Your task to perform on an android device: Add panasonic triple a to the cart on walmart, then select checkout. Image 0: 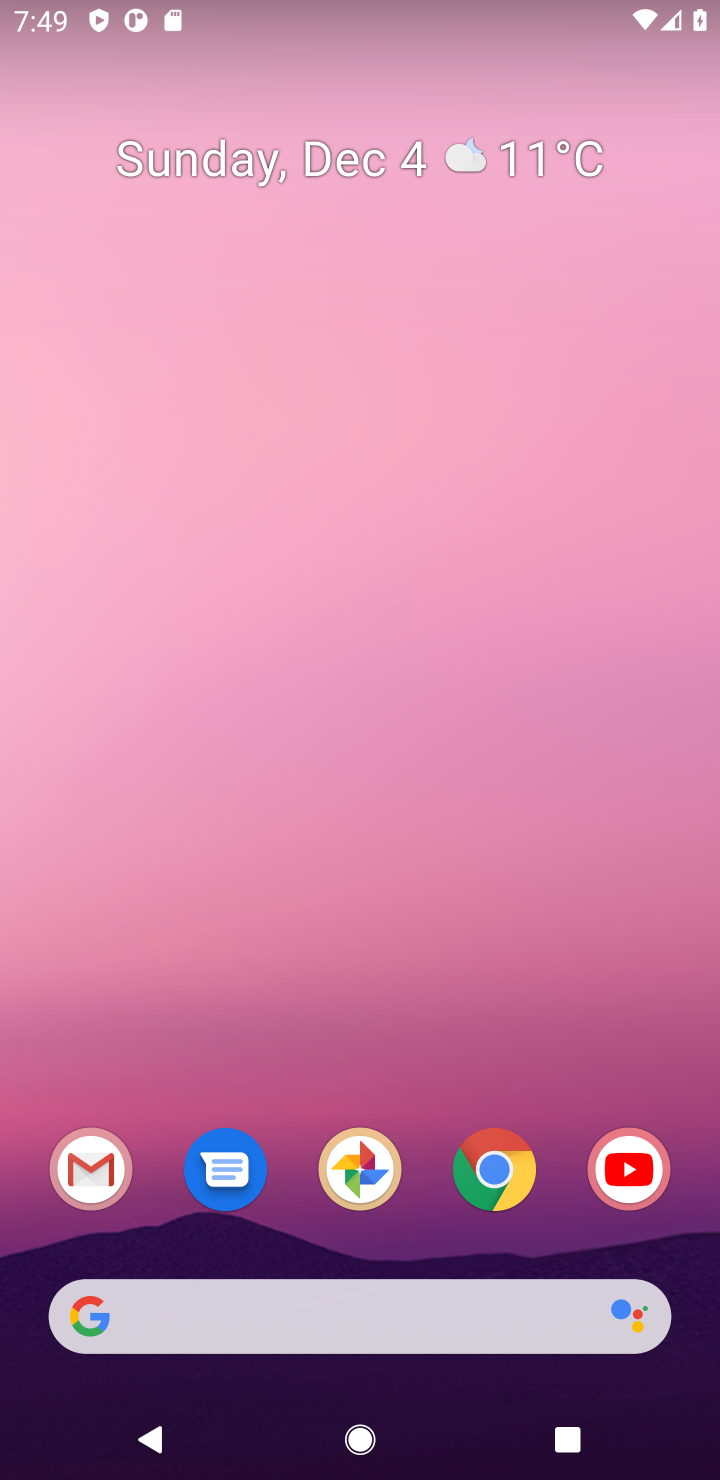
Step 0: drag from (470, 1380) to (515, 7)
Your task to perform on an android device: Add panasonic triple a to the cart on walmart, then select checkout. Image 1: 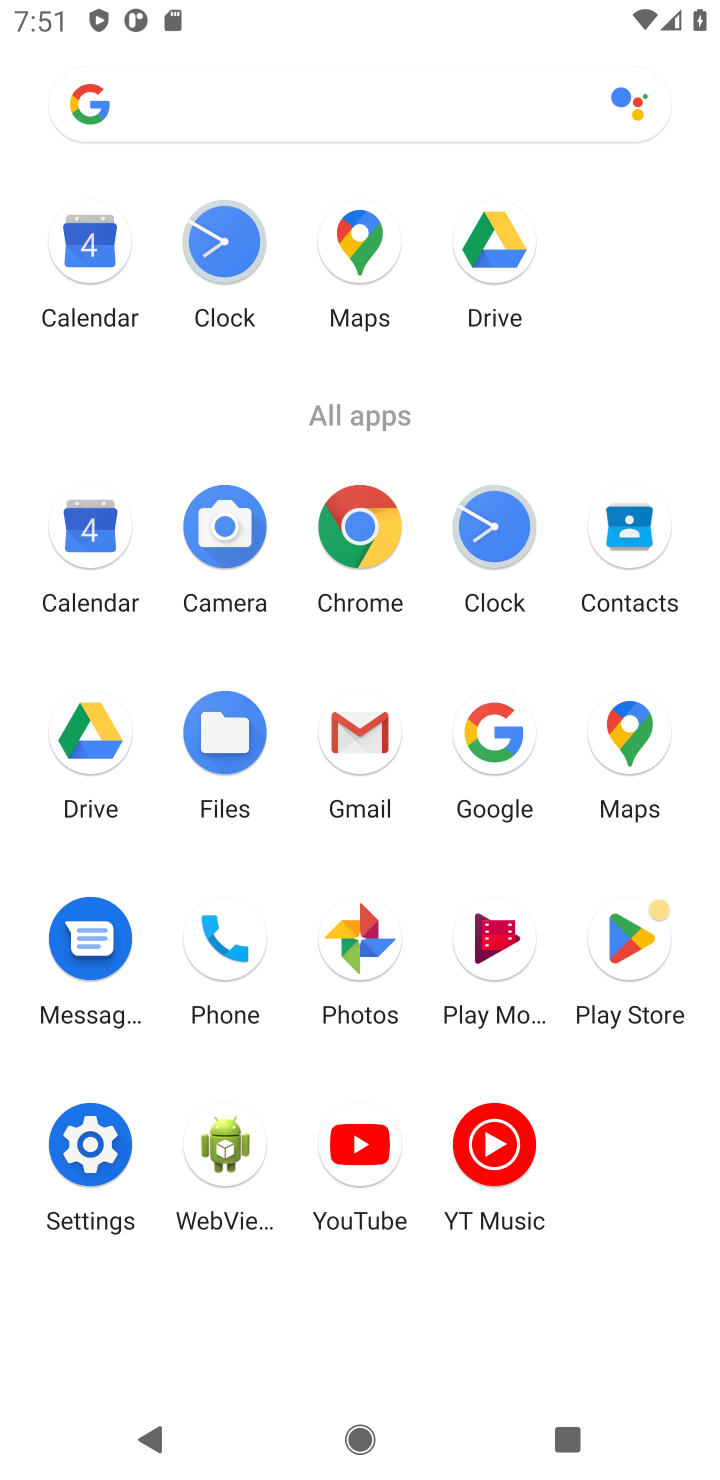
Step 1: click (357, 523)
Your task to perform on an android device: Add panasonic triple a to the cart on walmart, then select checkout. Image 2: 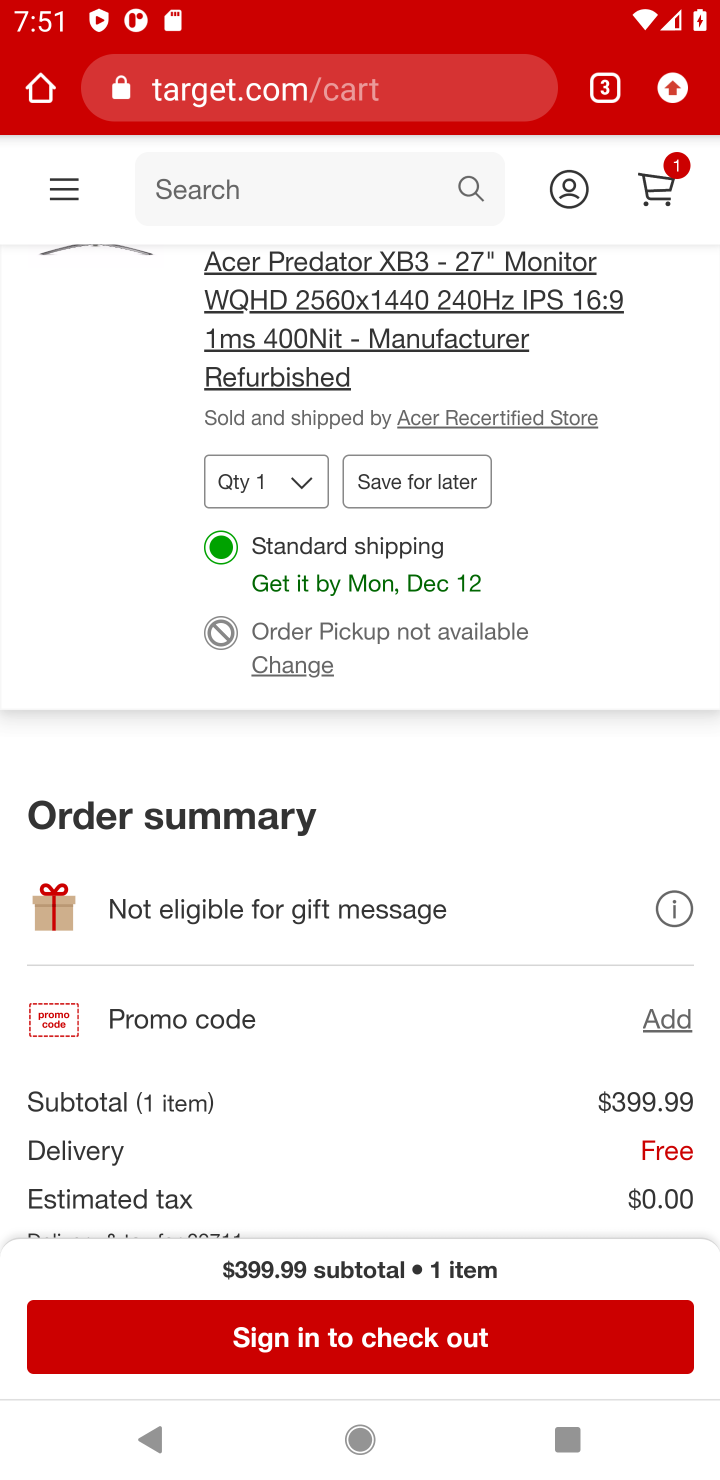
Step 2: click (408, 75)
Your task to perform on an android device: Add panasonic triple a to the cart on walmart, then select checkout. Image 3: 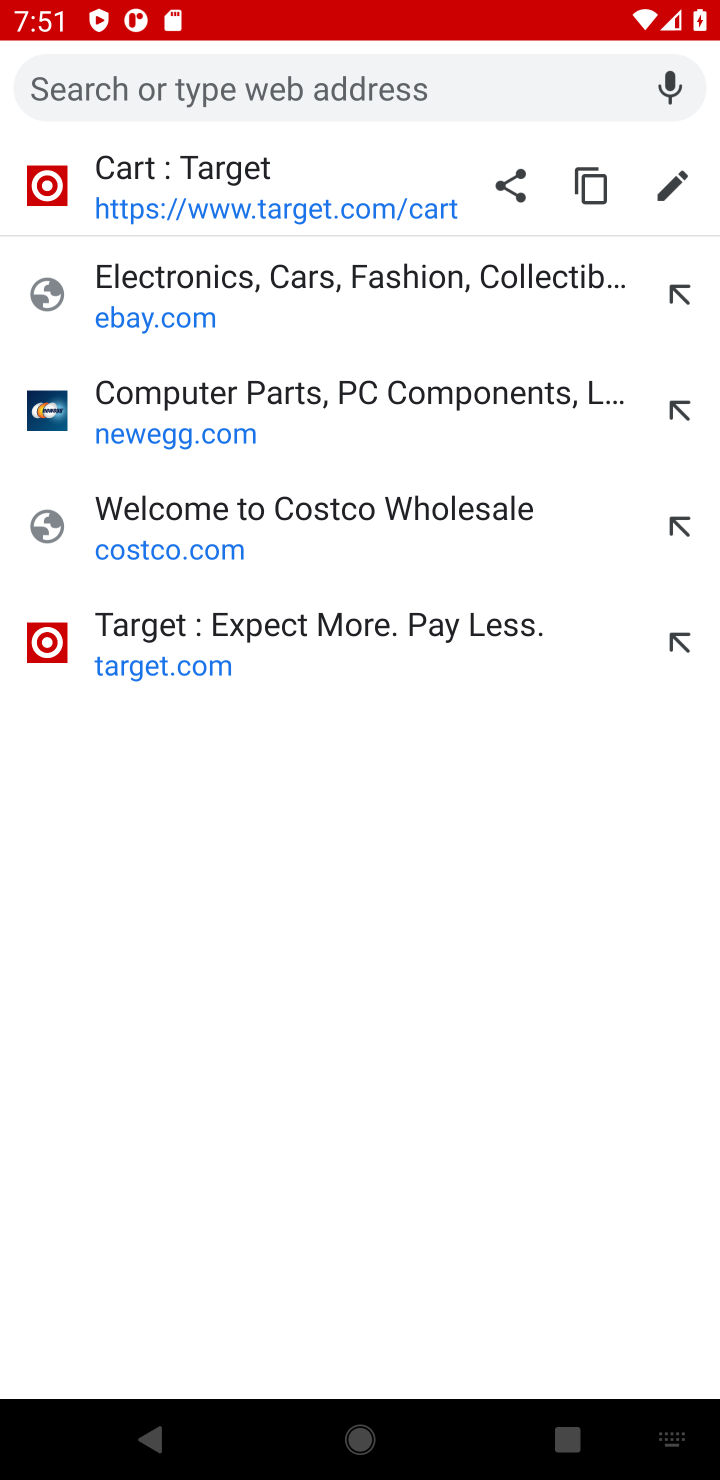
Step 3: type "walmart"
Your task to perform on an android device: Add panasonic triple a to the cart on walmart, then select checkout. Image 4: 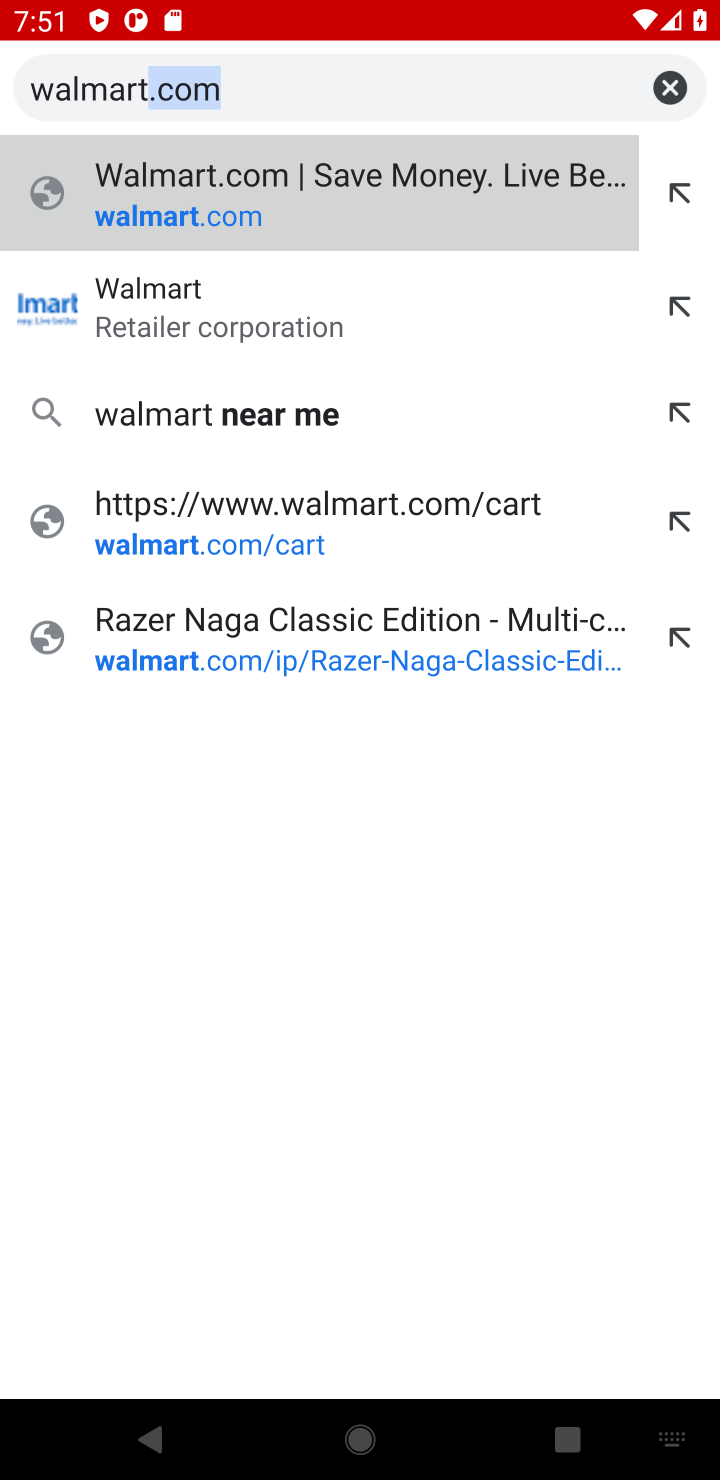
Step 4: type ""
Your task to perform on an android device: Add panasonic triple a to the cart on walmart, then select checkout. Image 5: 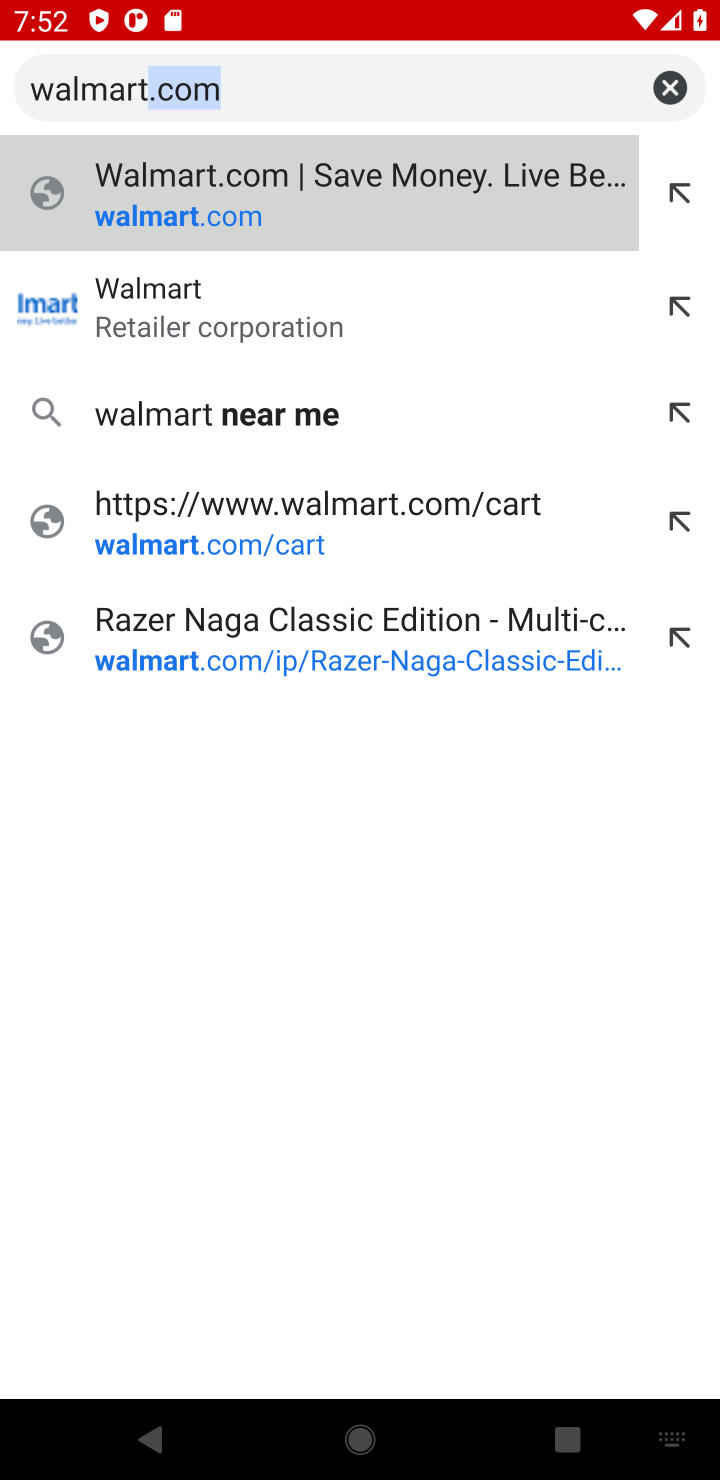
Step 5: click (193, 209)
Your task to perform on an android device: Add panasonic triple a to the cart on walmart, then select checkout. Image 6: 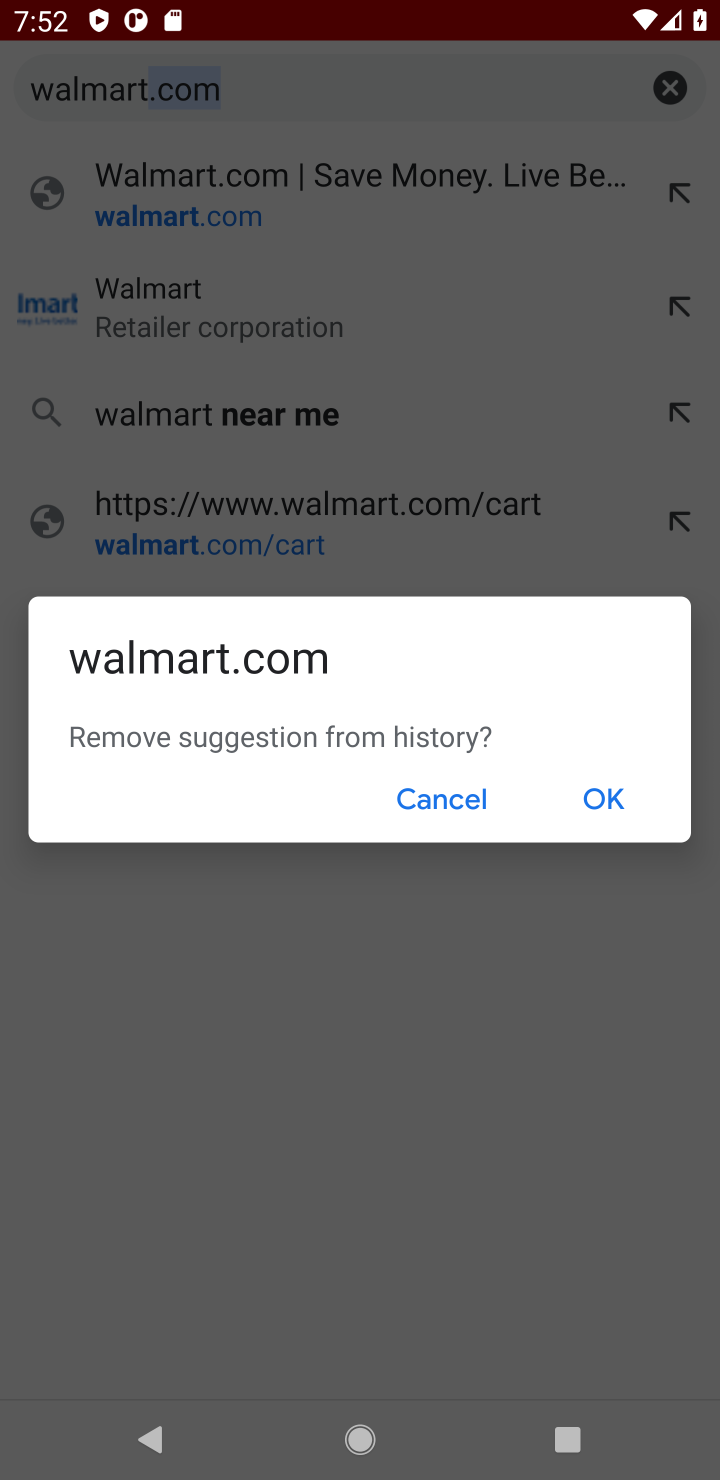
Step 6: click (595, 791)
Your task to perform on an android device: Add panasonic triple a to the cart on walmart, then select checkout. Image 7: 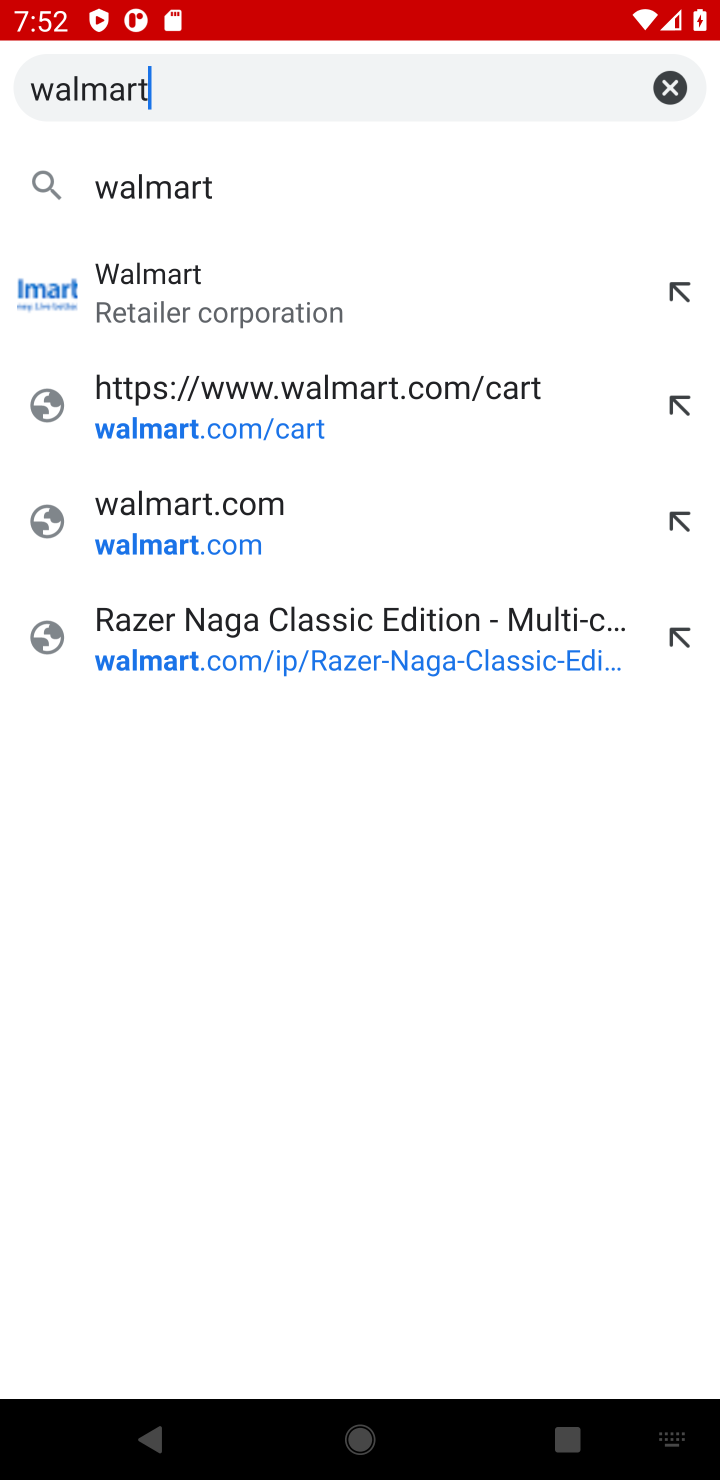
Step 7: click (174, 424)
Your task to perform on an android device: Add panasonic triple a to the cart on walmart, then select checkout. Image 8: 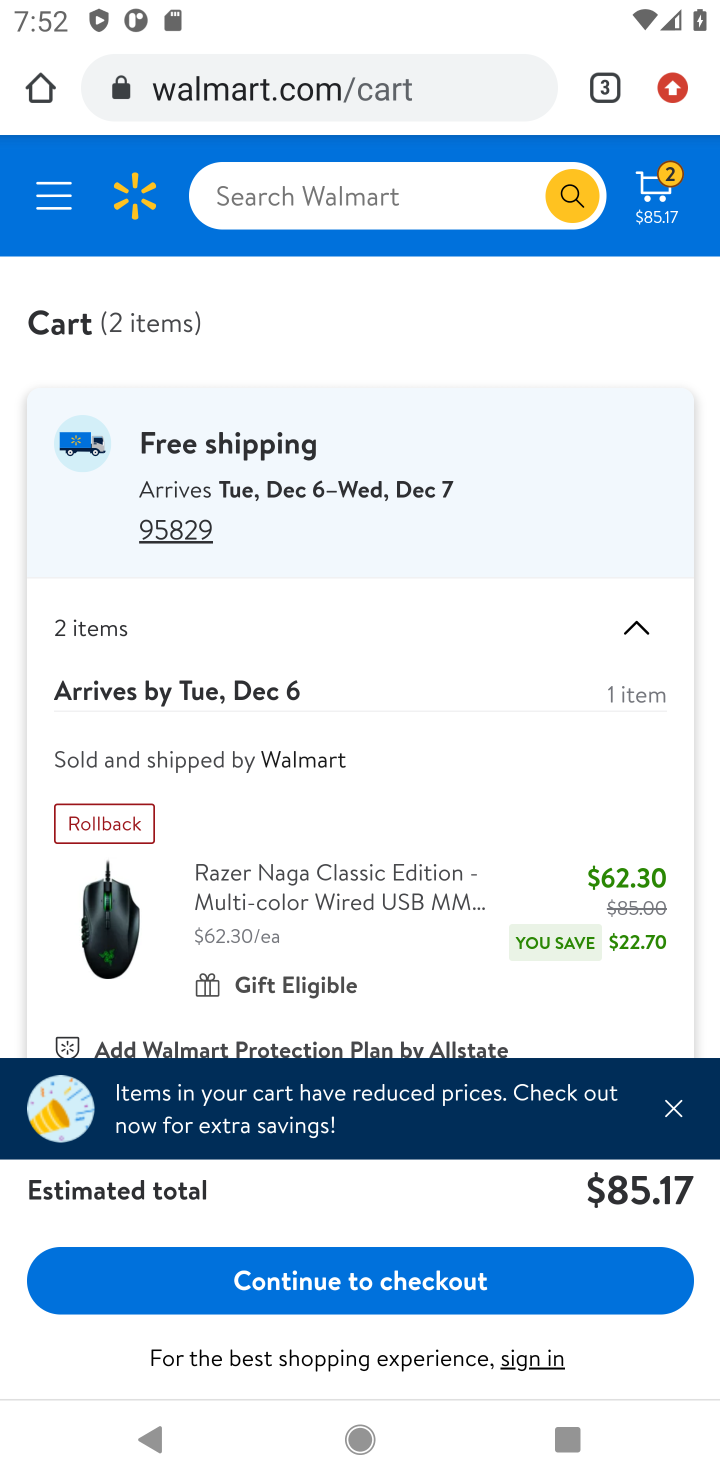
Step 8: drag from (399, 892) to (419, 311)
Your task to perform on an android device: Add panasonic triple a to the cart on walmart, then select checkout. Image 9: 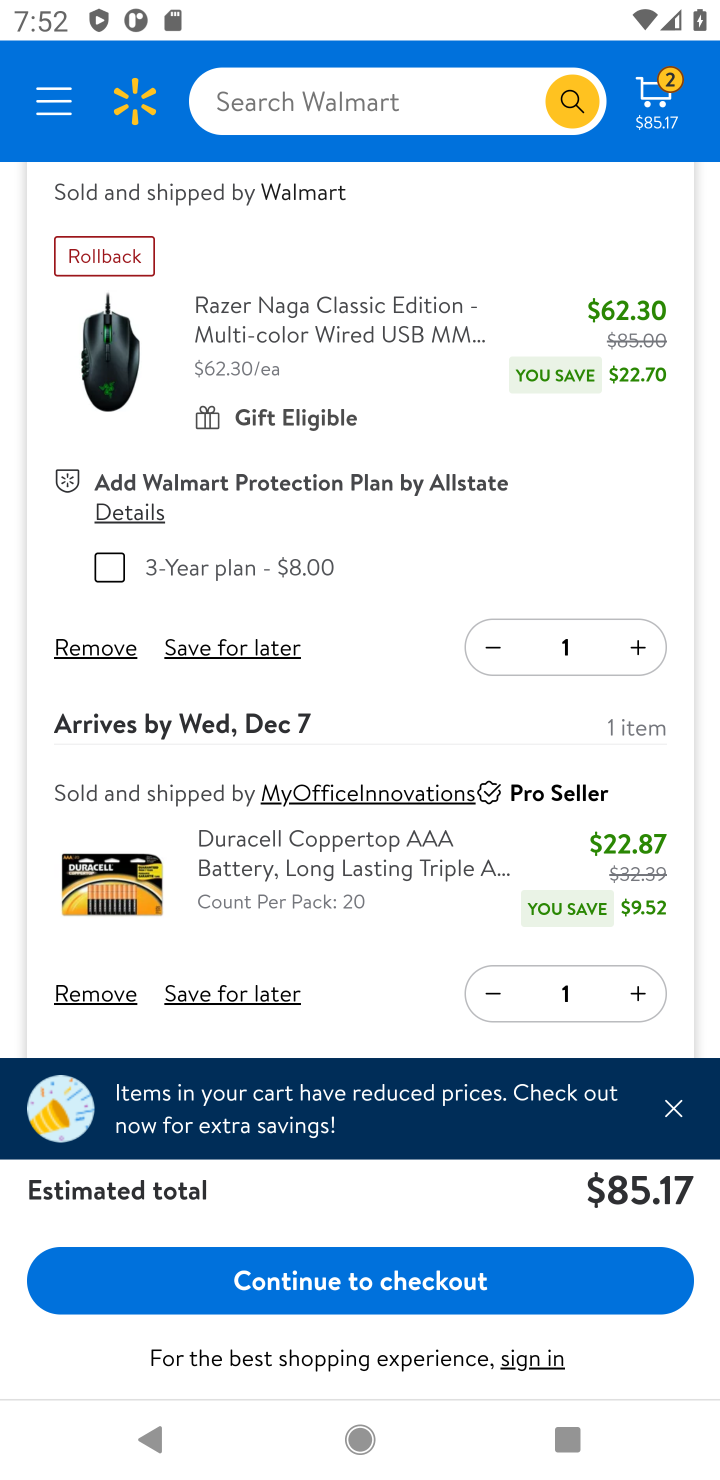
Step 9: click (373, 97)
Your task to perform on an android device: Add panasonic triple a to the cart on walmart, then select checkout. Image 10: 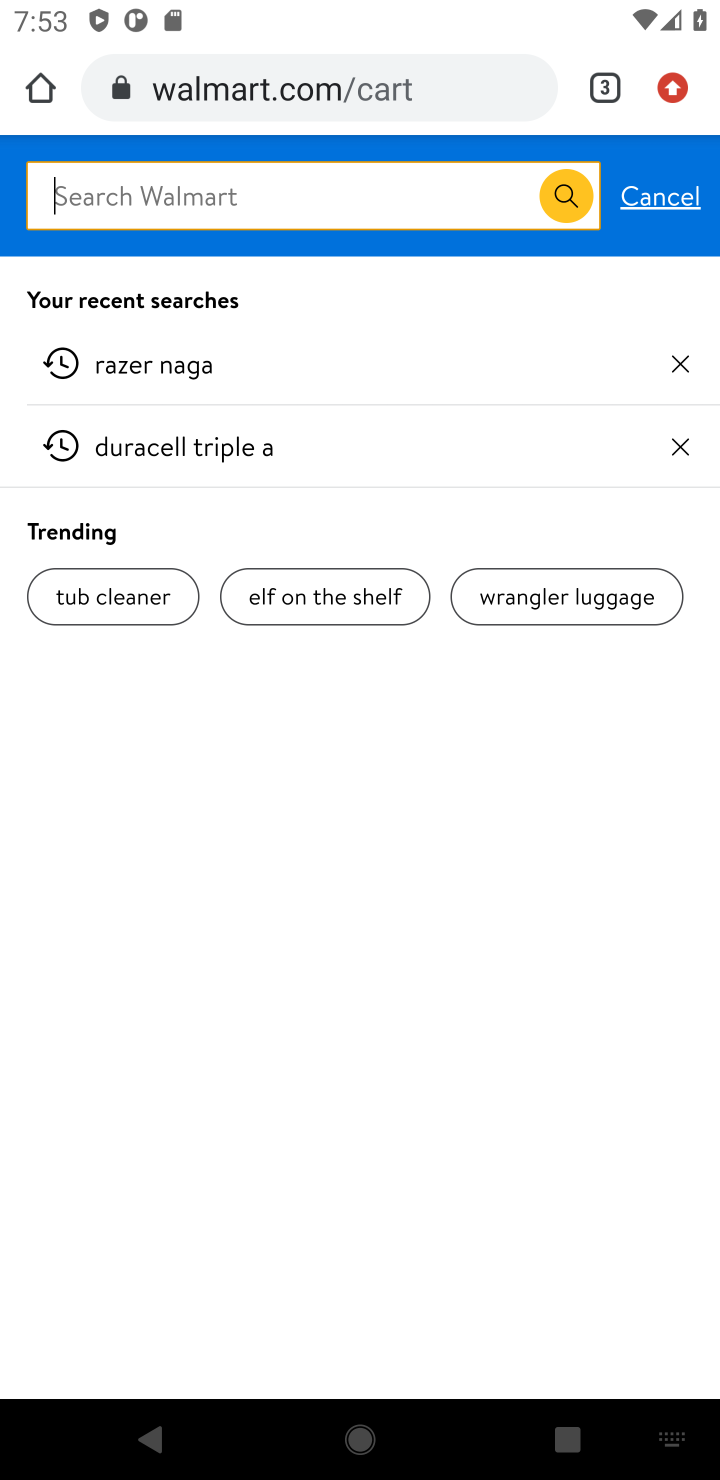
Step 10: type "panasonic triple a"
Your task to perform on an android device: Add panasonic triple a to the cart on walmart, then select checkout. Image 11: 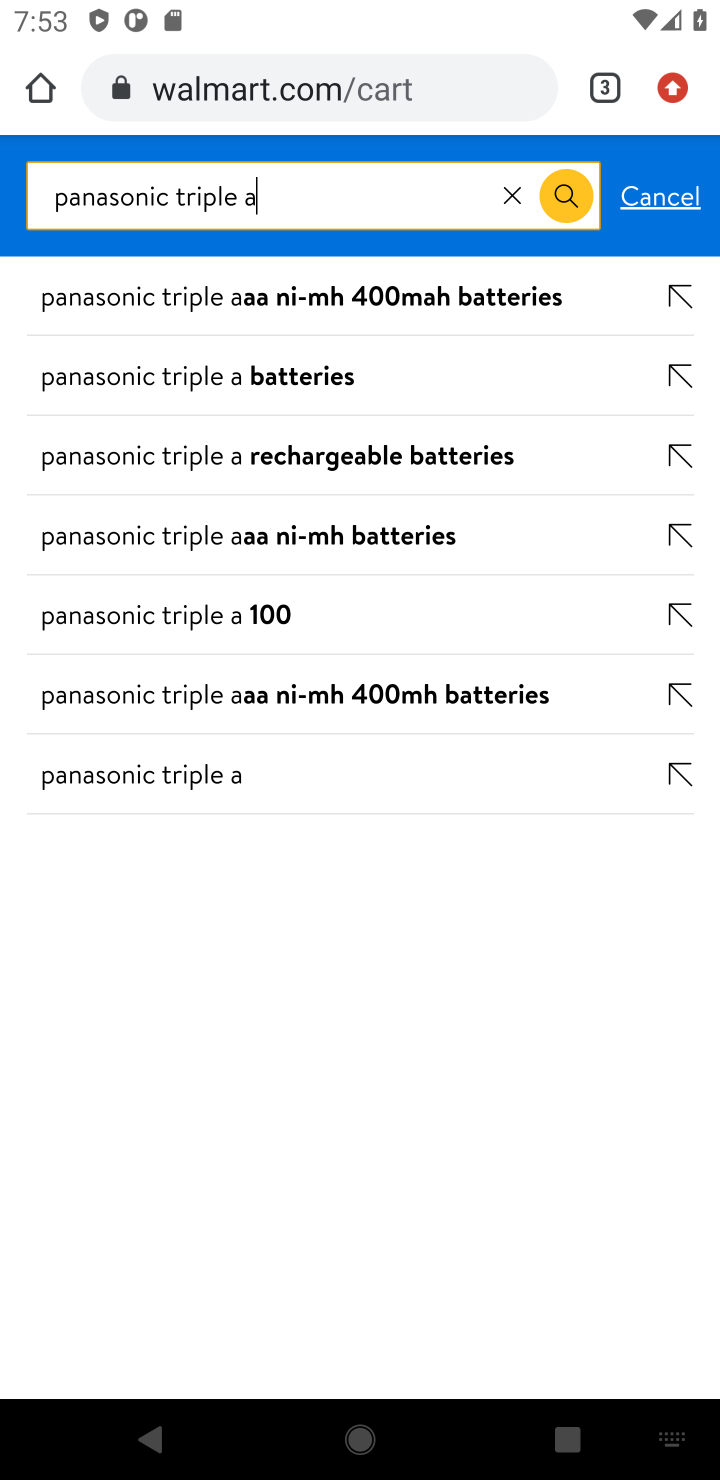
Step 11: click (102, 782)
Your task to perform on an android device: Add panasonic triple a to the cart on walmart, then select checkout. Image 12: 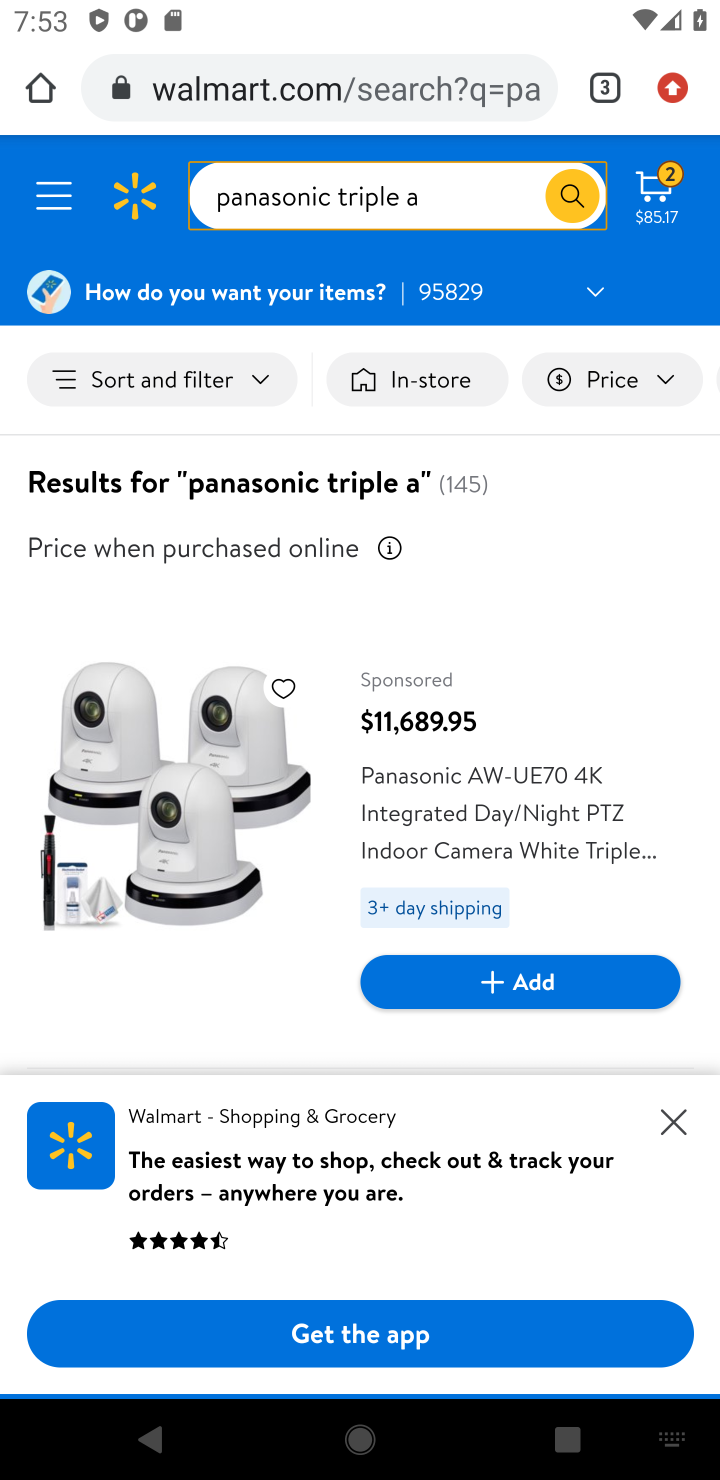
Step 12: drag from (284, 882) to (379, 475)
Your task to perform on an android device: Add panasonic triple a to the cart on walmart, then select checkout. Image 13: 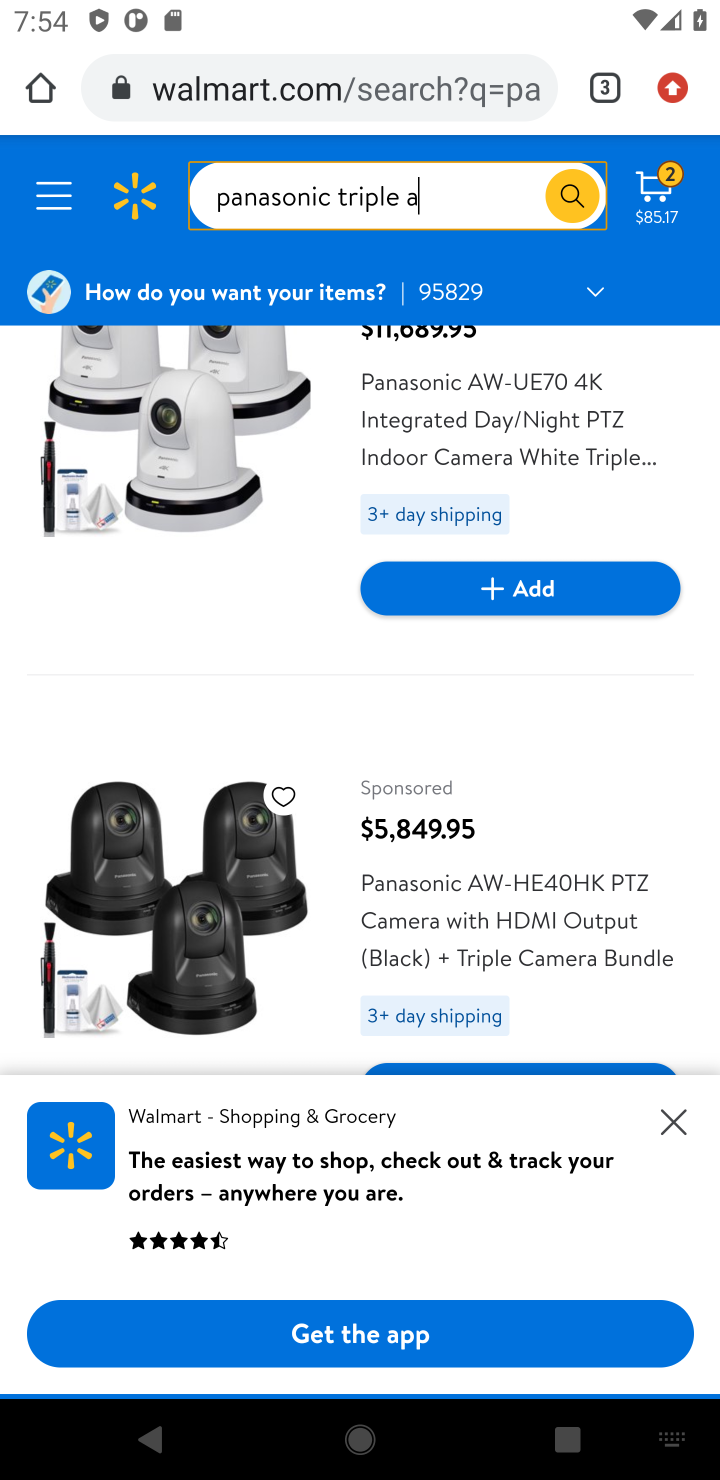
Step 13: click (264, 402)
Your task to perform on an android device: Add panasonic triple a to the cart on walmart, then select checkout. Image 14: 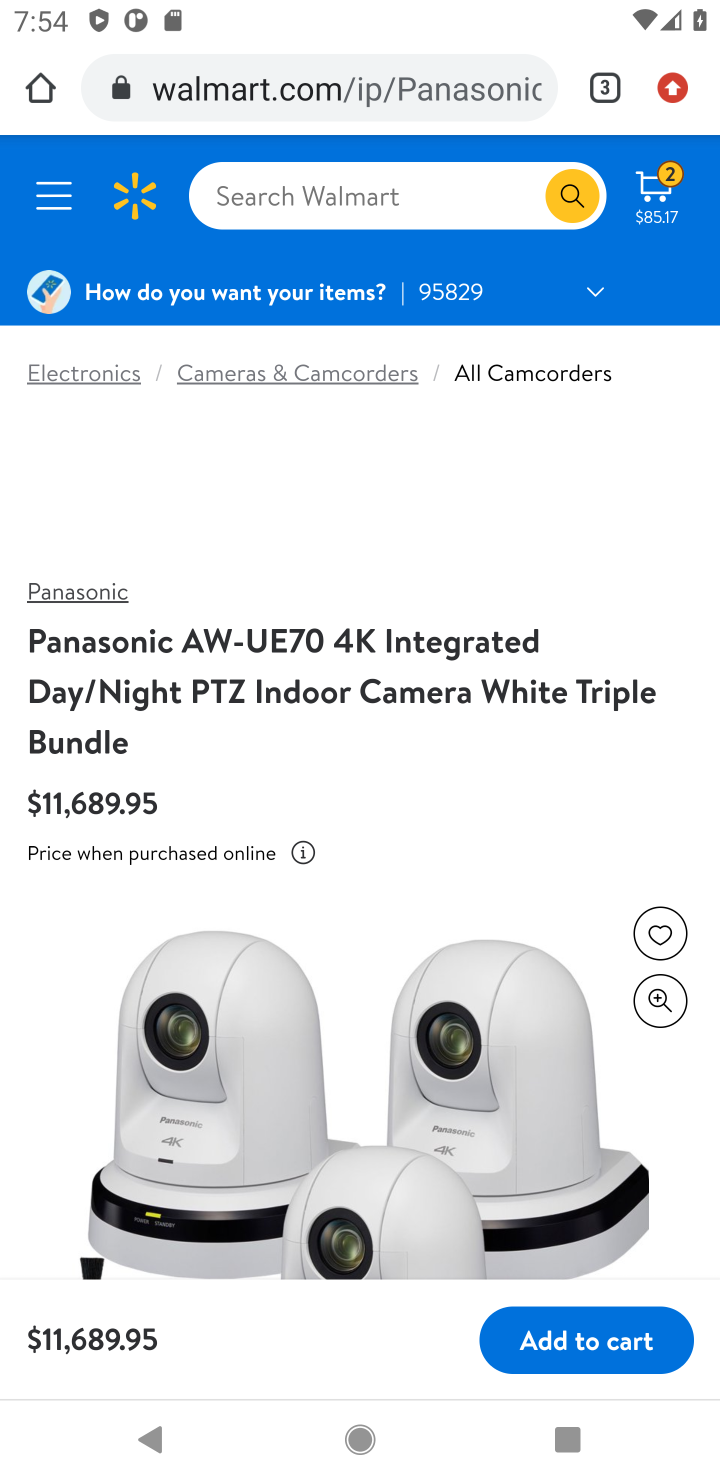
Step 14: click (608, 1348)
Your task to perform on an android device: Add panasonic triple a to the cart on walmart, then select checkout. Image 15: 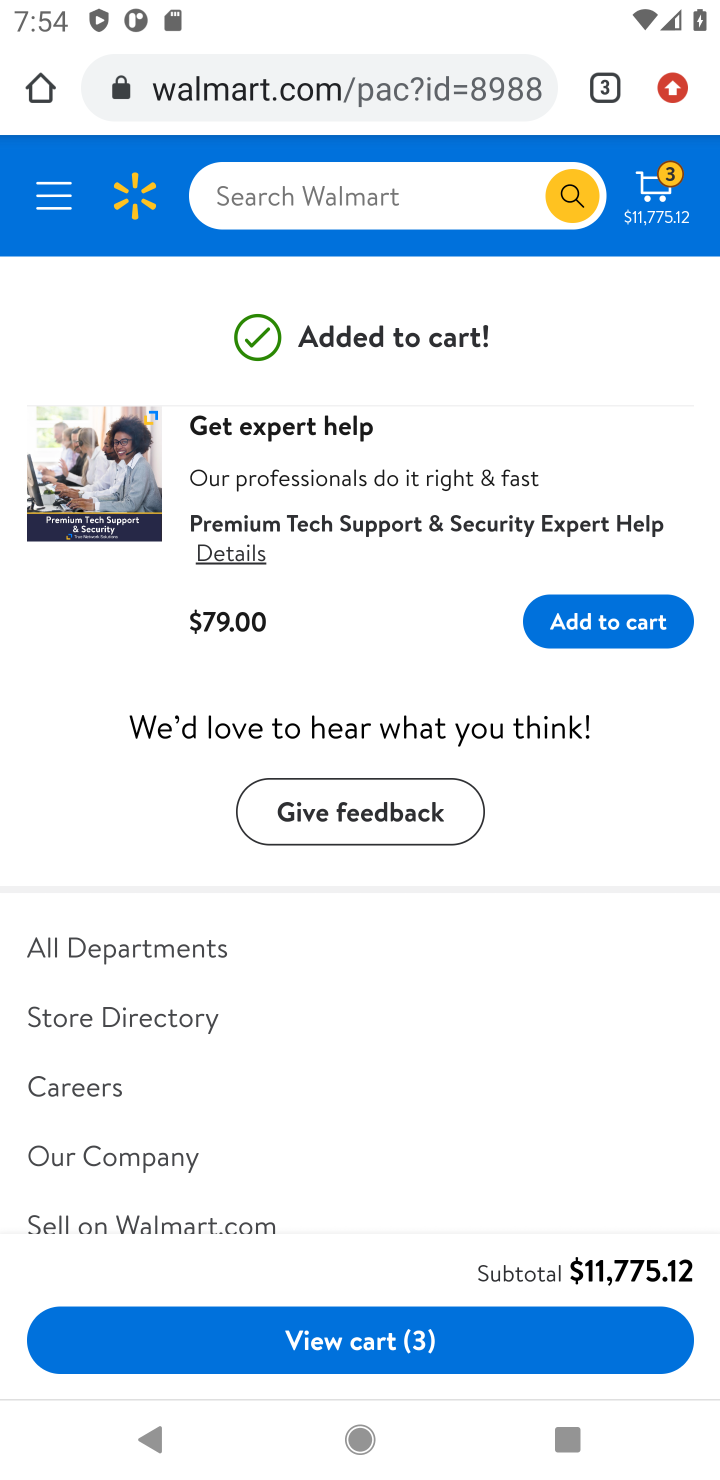
Step 15: click (244, 462)
Your task to perform on an android device: Add panasonic triple a to the cart on walmart, then select checkout. Image 16: 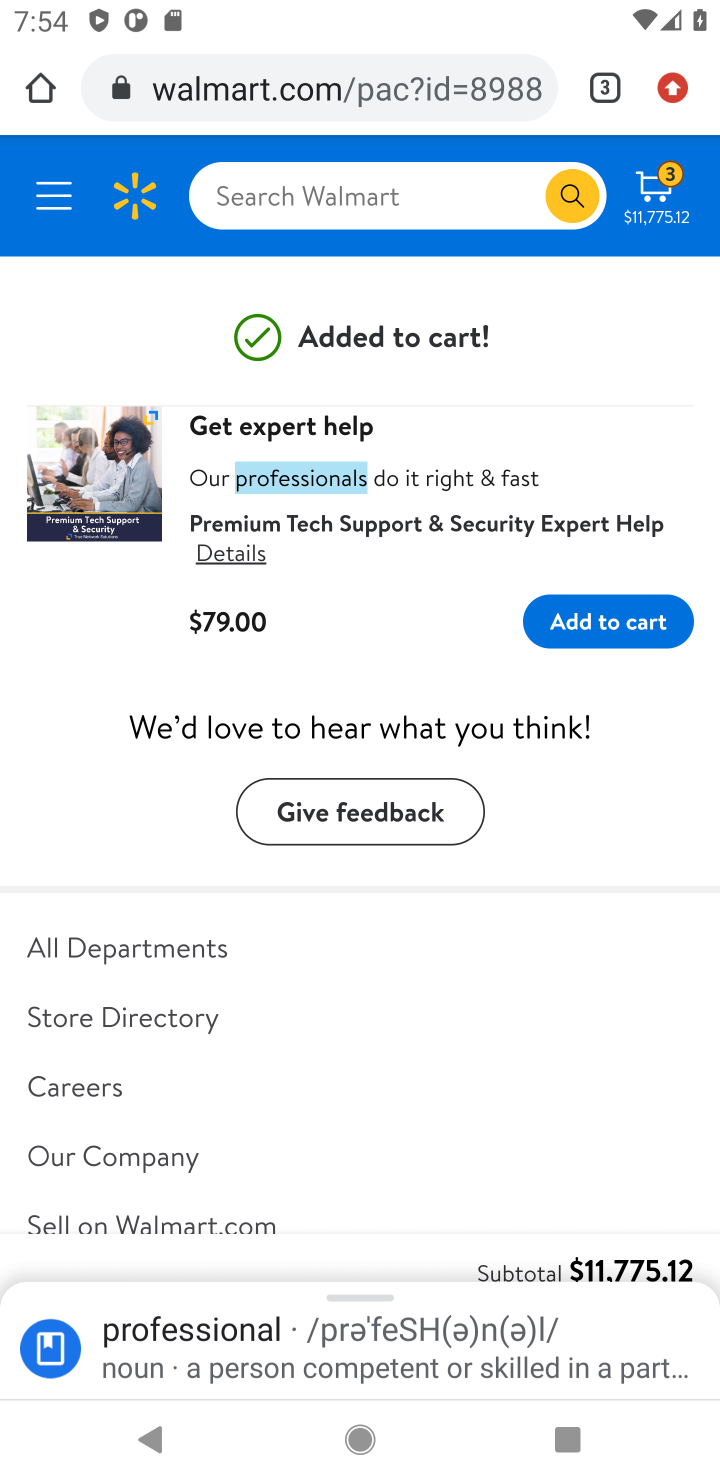
Step 16: click (647, 184)
Your task to perform on an android device: Add panasonic triple a to the cart on walmart, then select checkout. Image 17: 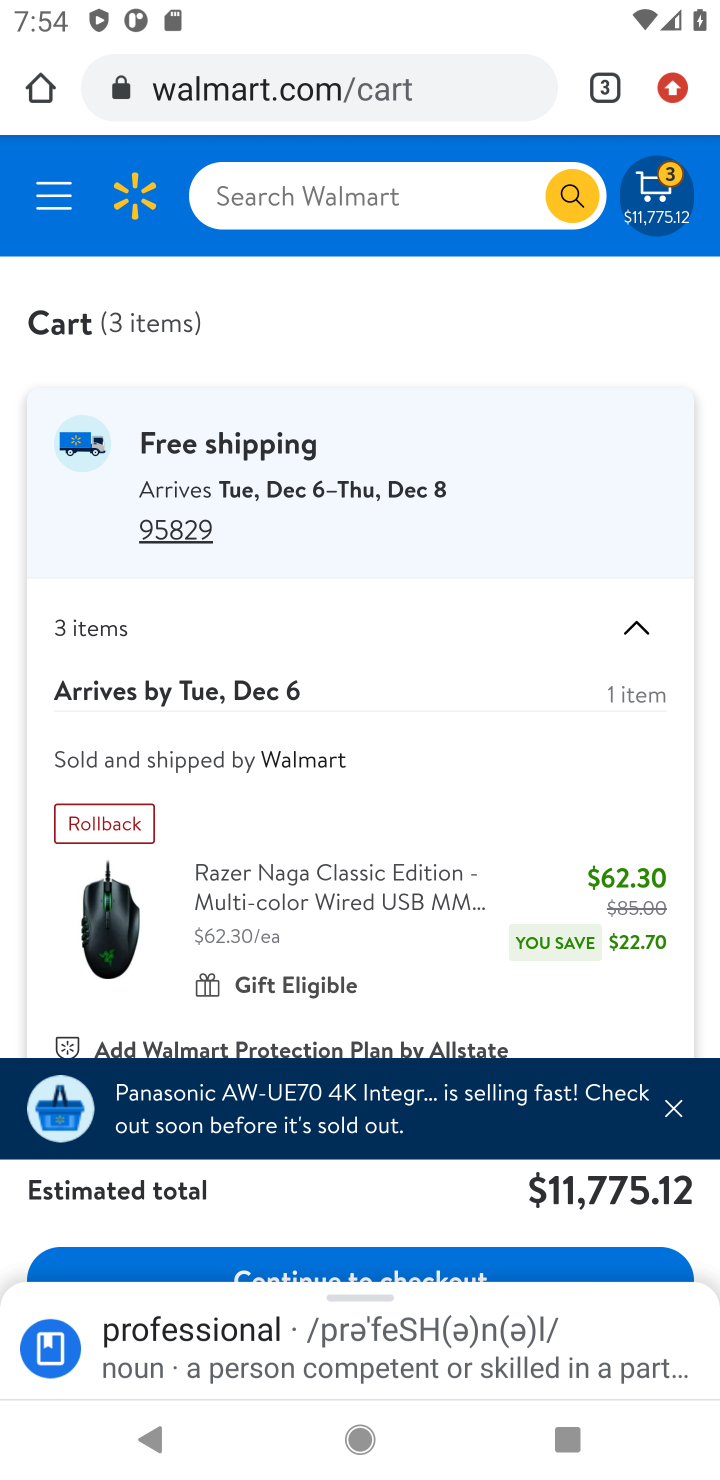
Step 17: task complete